Your task to perform on an android device: check google app version Image 0: 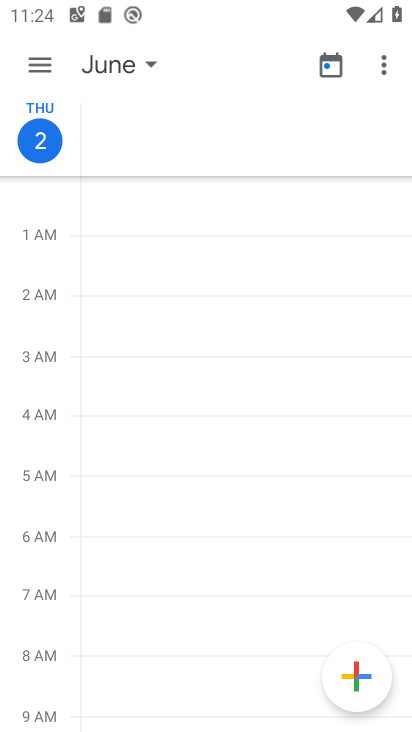
Step 0: press home button
Your task to perform on an android device: check google app version Image 1: 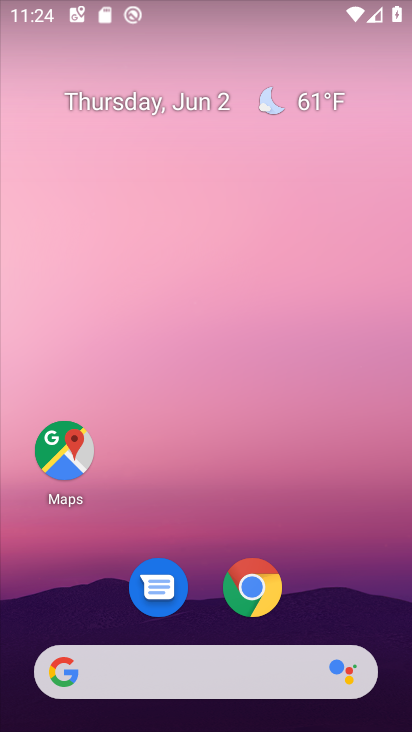
Step 1: click (277, 680)
Your task to perform on an android device: check google app version Image 2: 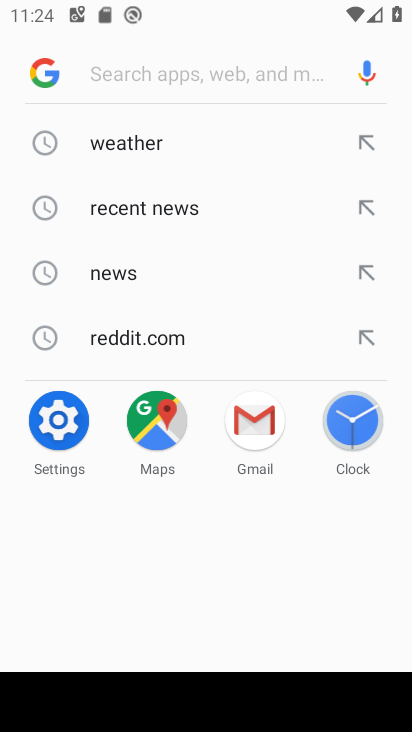
Step 2: click (38, 74)
Your task to perform on an android device: check google app version Image 3: 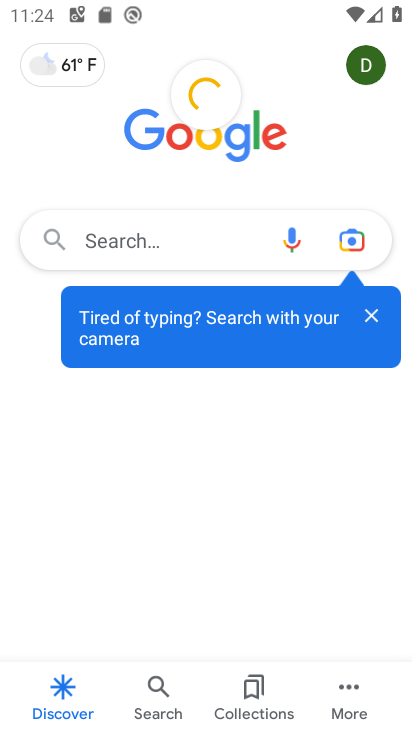
Step 3: click (360, 680)
Your task to perform on an android device: check google app version Image 4: 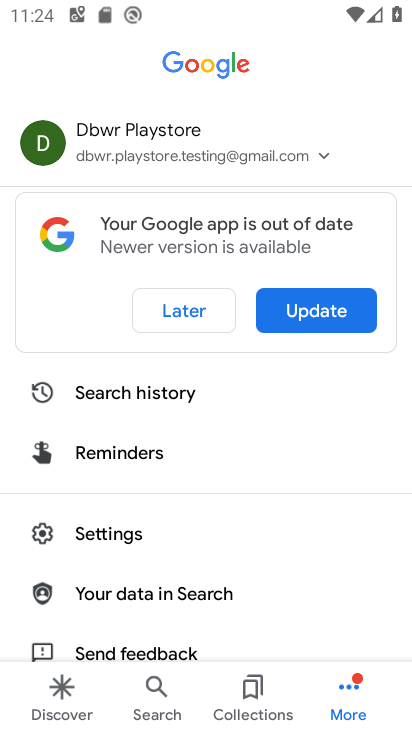
Step 4: click (162, 518)
Your task to perform on an android device: check google app version Image 5: 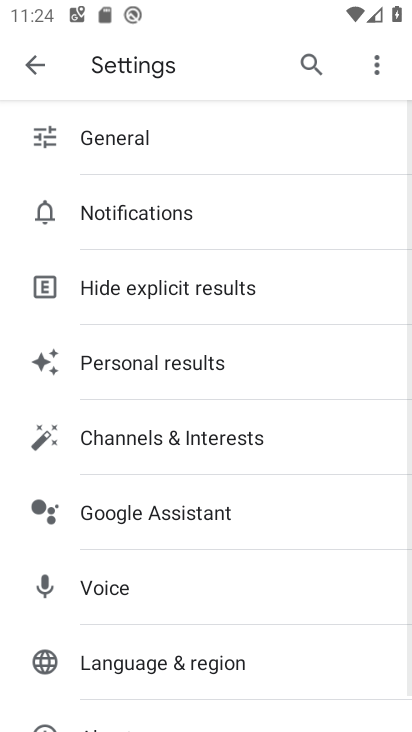
Step 5: drag from (163, 613) to (188, 292)
Your task to perform on an android device: check google app version Image 6: 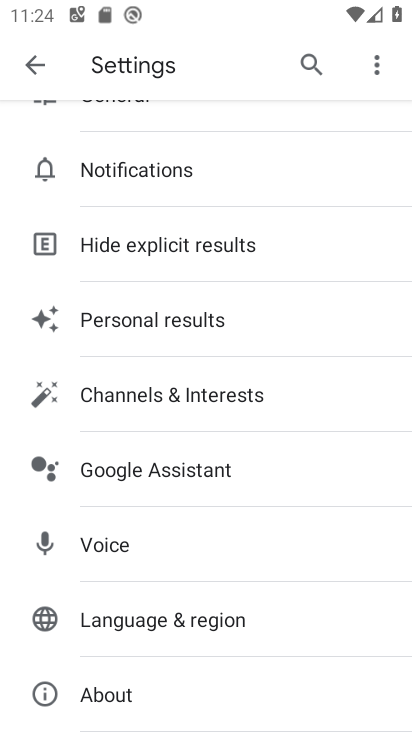
Step 6: click (153, 684)
Your task to perform on an android device: check google app version Image 7: 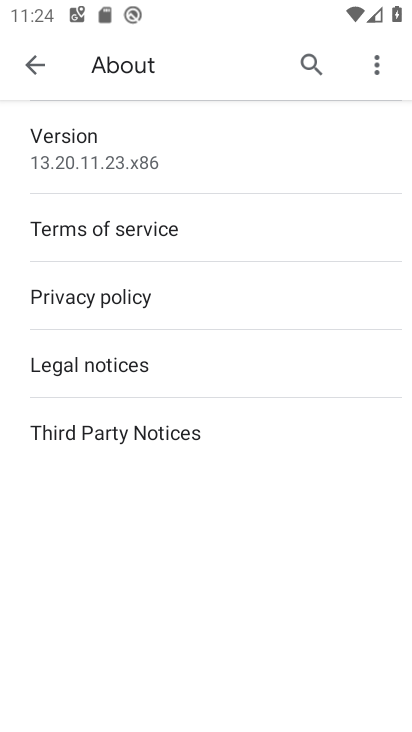
Step 7: task complete